Your task to perform on an android device: Open Youtube and go to "Your channel" Image 0: 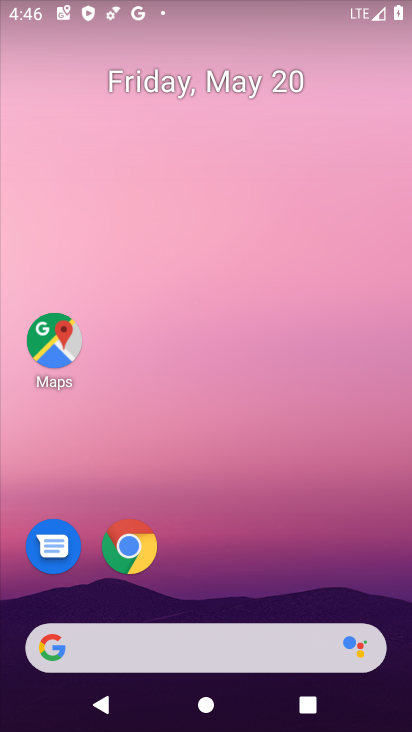
Step 0: drag from (241, 561) to (185, 79)
Your task to perform on an android device: Open Youtube and go to "Your channel" Image 1: 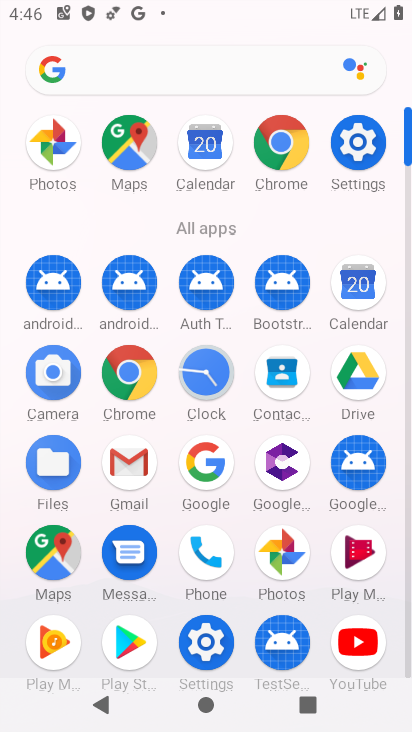
Step 1: click (358, 638)
Your task to perform on an android device: Open Youtube and go to "Your channel" Image 2: 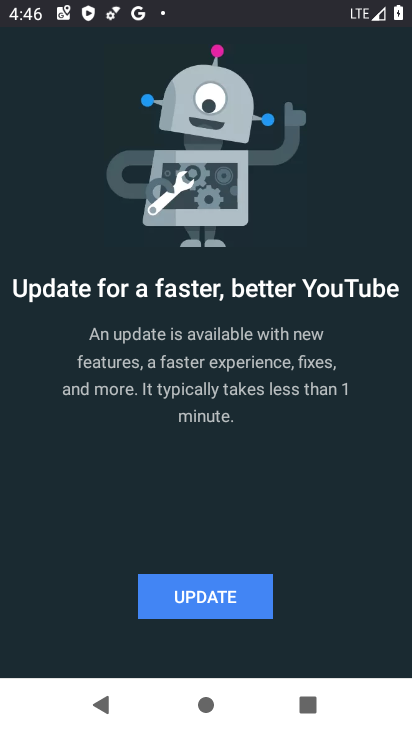
Step 2: click (219, 594)
Your task to perform on an android device: Open Youtube and go to "Your channel" Image 3: 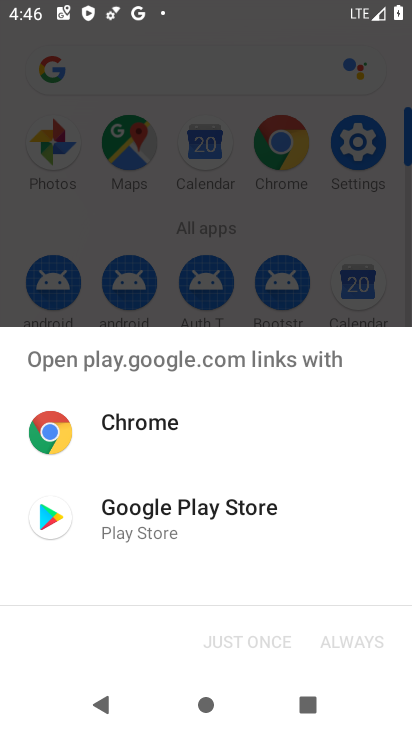
Step 3: click (140, 496)
Your task to perform on an android device: Open Youtube and go to "Your channel" Image 4: 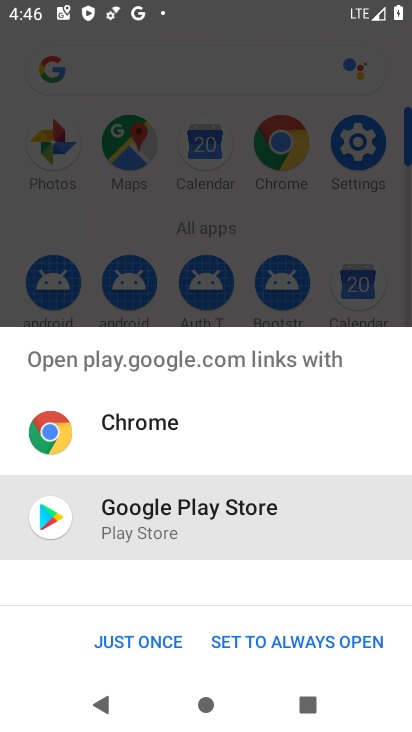
Step 4: click (127, 640)
Your task to perform on an android device: Open Youtube and go to "Your channel" Image 5: 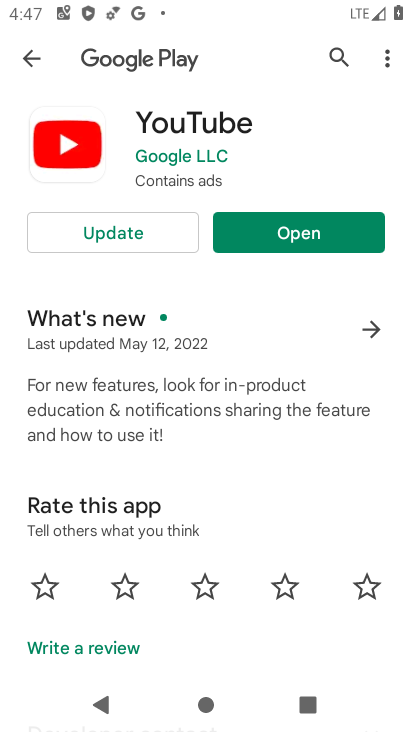
Step 5: click (115, 226)
Your task to perform on an android device: Open Youtube and go to "Your channel" Image 6: 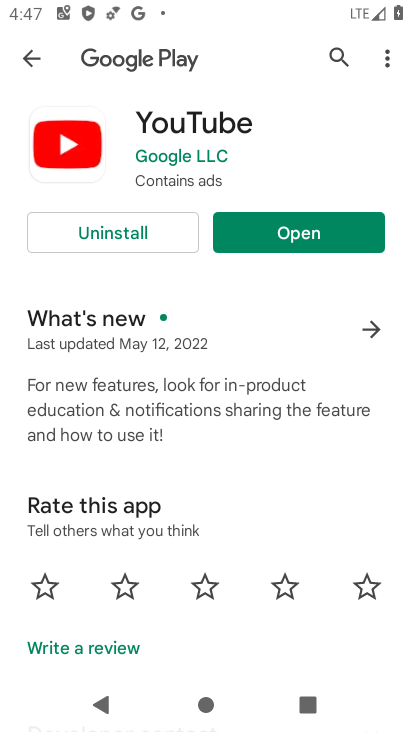
Step 6: click (291, 230)
Your task to perform on an android device: Open Youtube and go to "Your channel" Image 7: 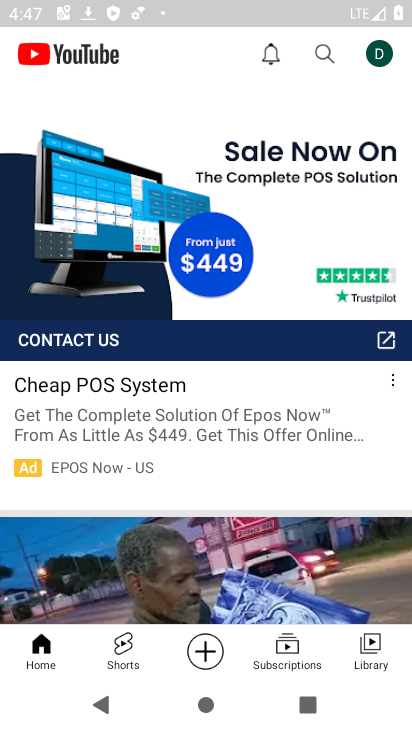
Step 7: click (380, 55)
Your task to perform on an android device: Open Youtube and go to "Your channel" Image 8: 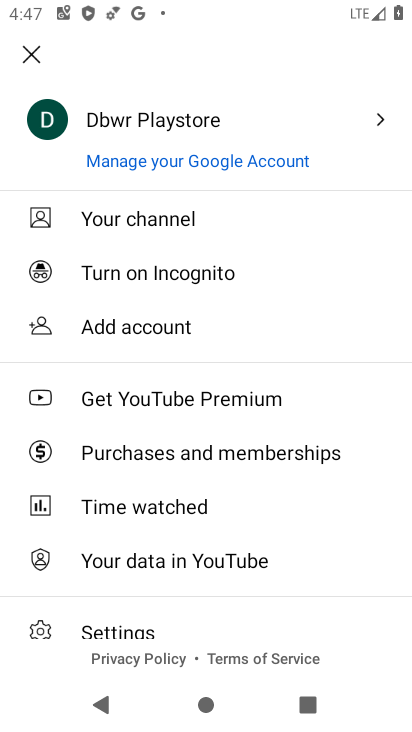
Step 8: click (165, 225)
Your task to perform on an android device: Open Youtube and go to "Your channel" Image 9: 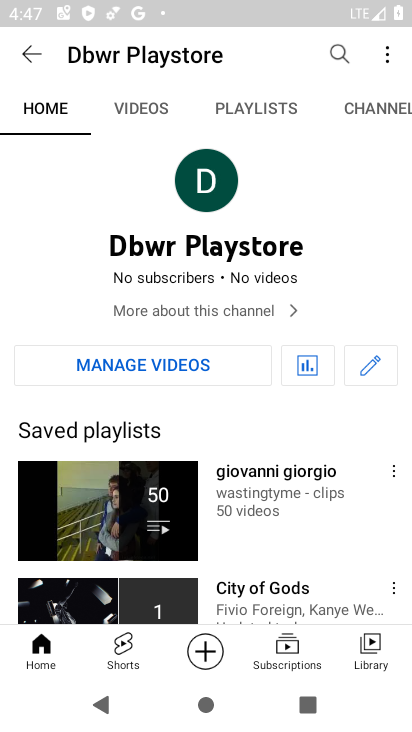
Step 9: task complete